Your task to perform on an android device: toggle wifi Image 0: 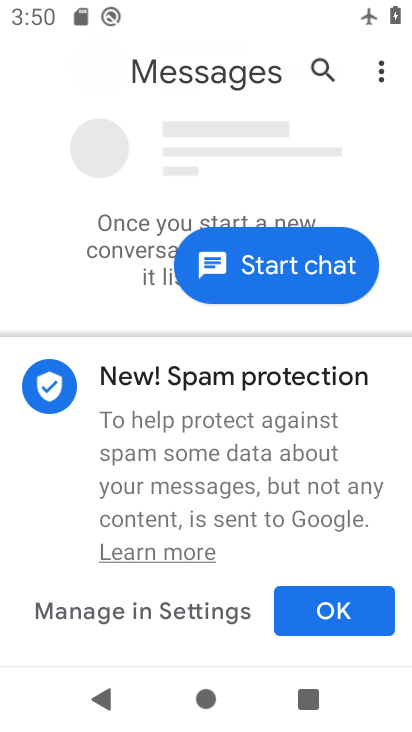
Step 0: press home button
Your task to perform on an android device: toggle wifi Image 1: 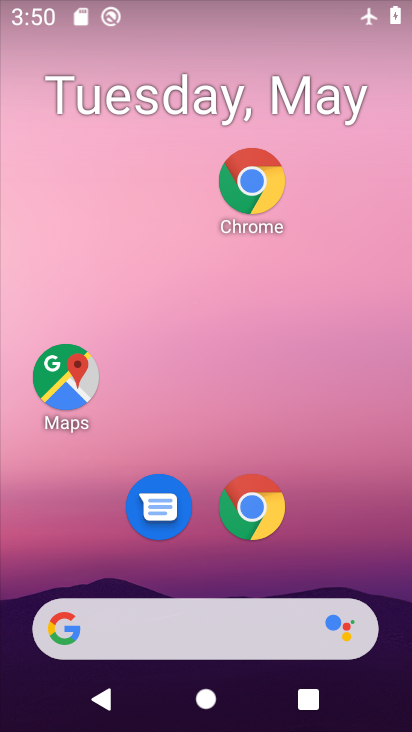
Step 1: drag from (366, 519) to (383, 46)
Your task to perform on an android device: toggle wifi Image 2: 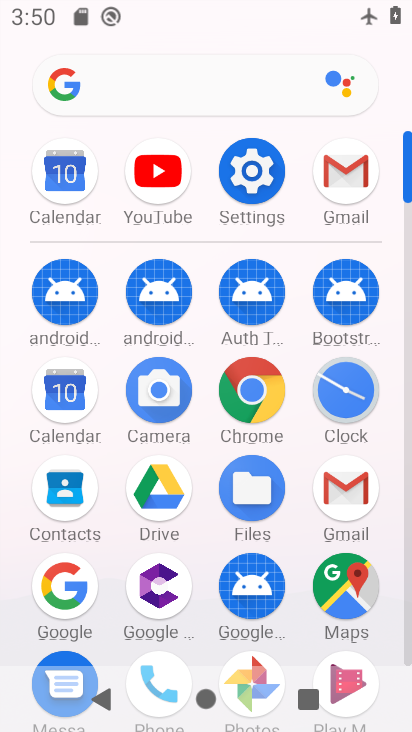
Step 2: click (256, 191)
Your task to perform on an android device: toggle wifi Image 3: 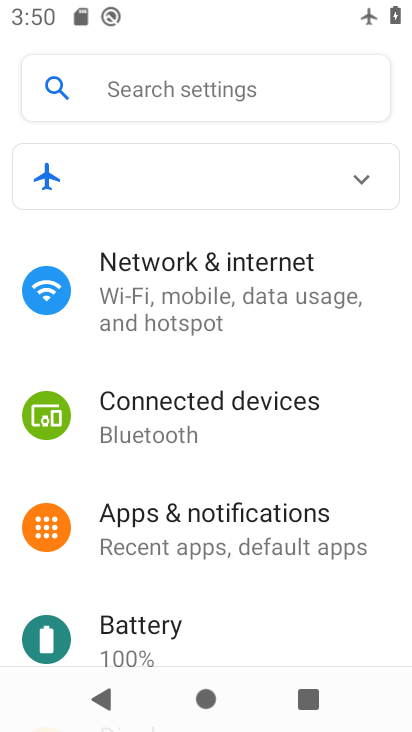
Step 3: click (181, 278)
Your task to perform on an android device: toggle wifi Image 4: 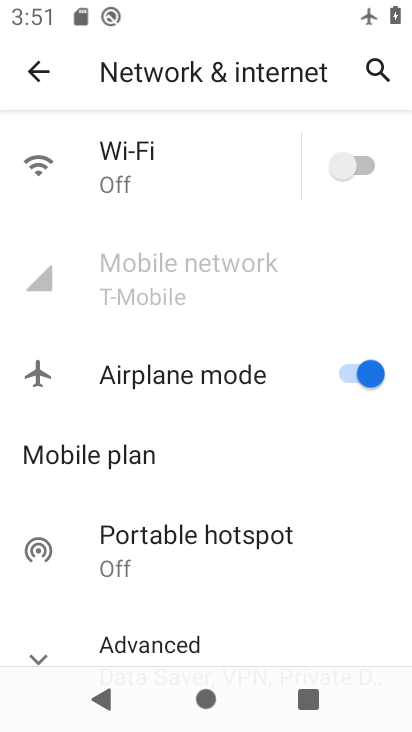
Step 4: click (367, 164)
Your task to perform on an android device: toggle wifi Image 5: 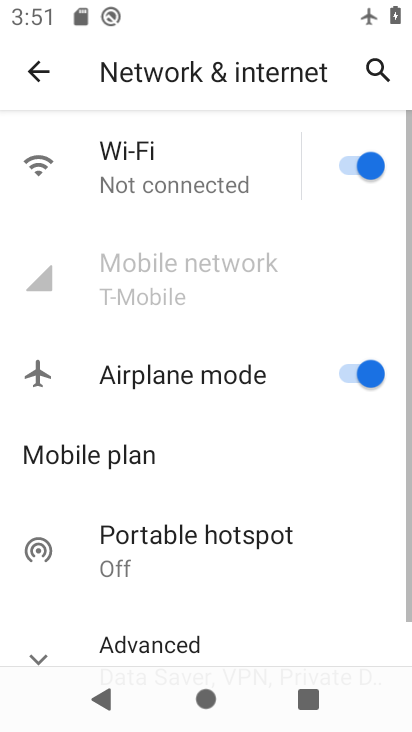
Step 5: task complete